Your task to perform on an android device: check the backup settings in the google photos Image 0: 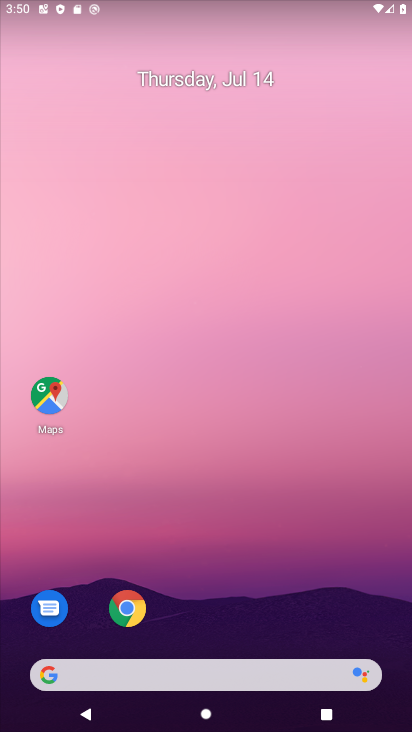
Step 0: drag from (0, 714) to (293, 53)
Your task to perform on an android device: check the backup settings in the google photos Image 1: 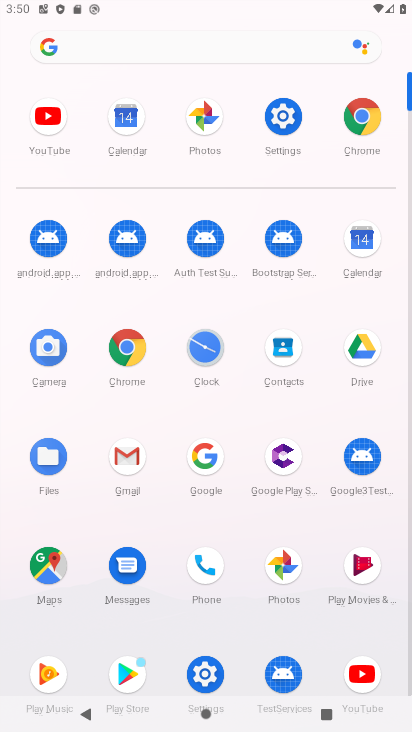
Step 1: click (273, 561)
Your task to perform on an android device: check the backup settings in the google photos Image 2: 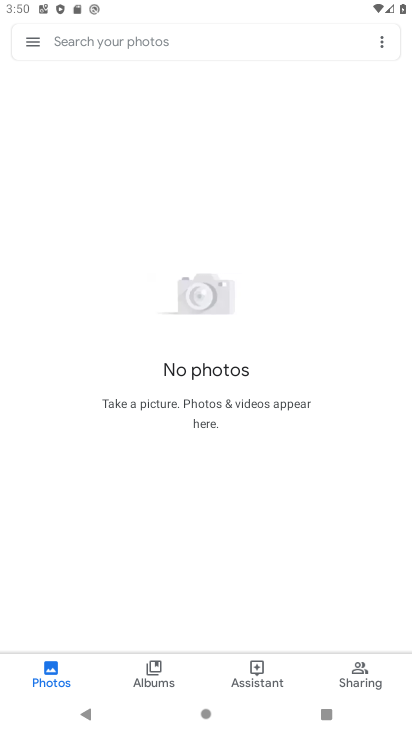
Step 2: click (27, 40)
Your task to perform on an android device: check the backup settings in the google photos Image 3: 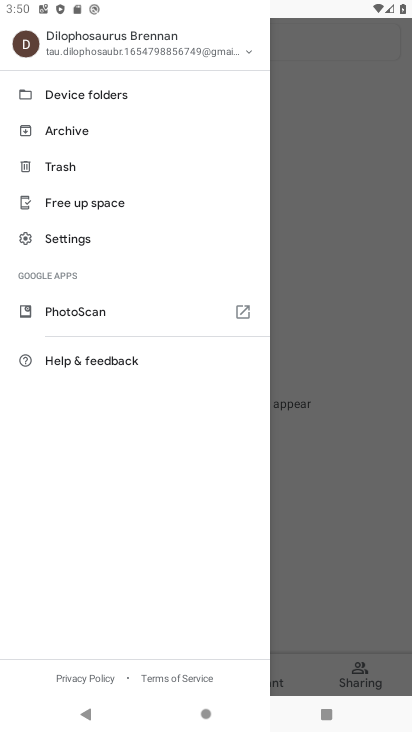
Step 3: task complete